Your task to perform on an android device: turn on priority inbox in the gmail app Image 0: 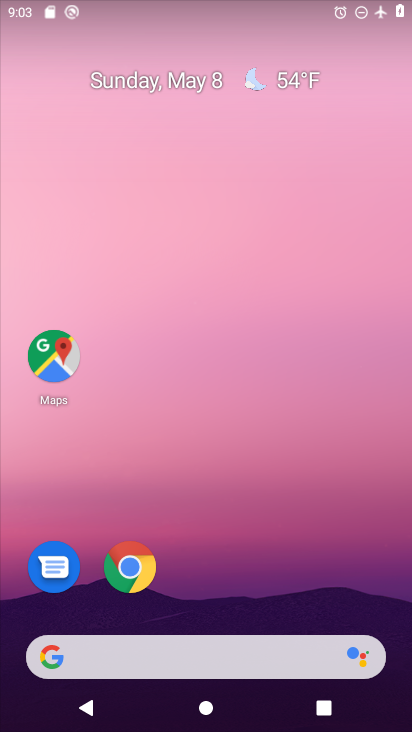
Step 0: drag from (291, 605) to (345, 173)
Your task to perform on an android device: turn on priority inbox in the gmail app Image 1: 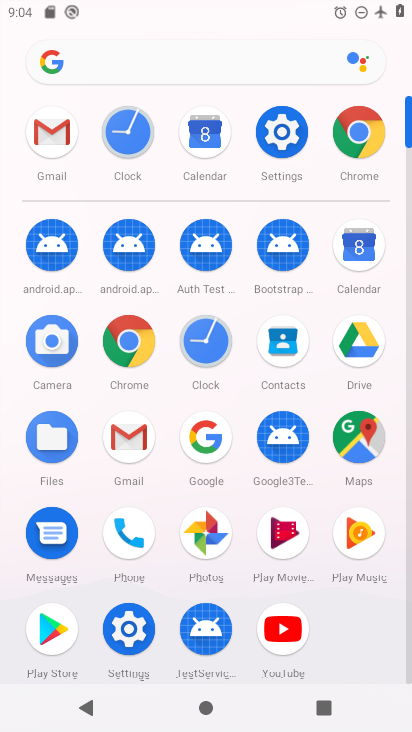
Step 1: click (120, 428)
Your task to perform on an android device: turn on priority inbox in the gmail app Image 2: 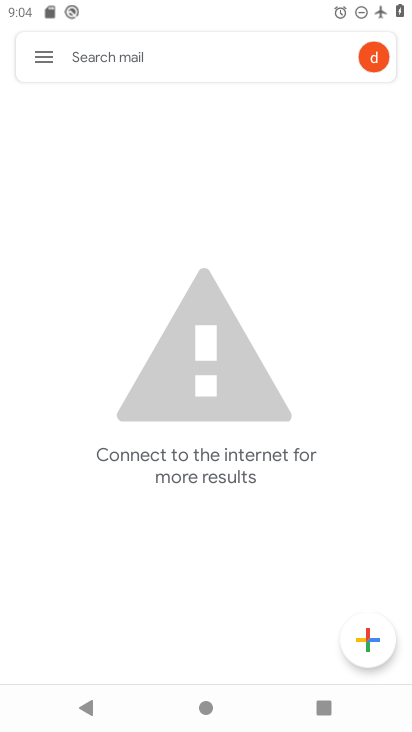
Step 2: click (31, 62)
Your task to perform on an android device: turn on priority inbox in the gmail app Image 3: 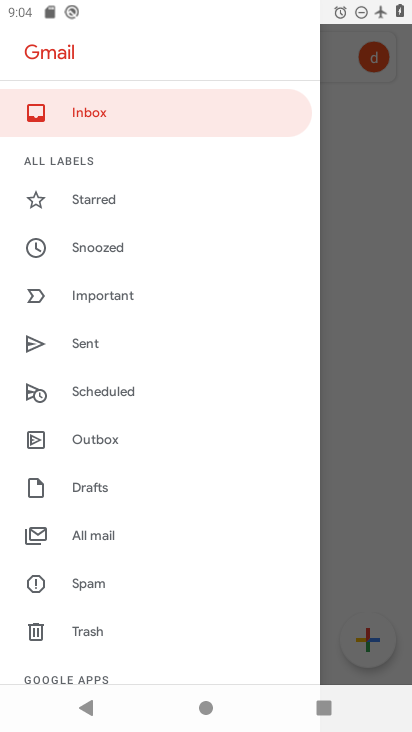
Step 3: drag from (68, 624) to (92, 277)
Your task to perform on an android device: turn on priority inbox in the gmail app Image 4: 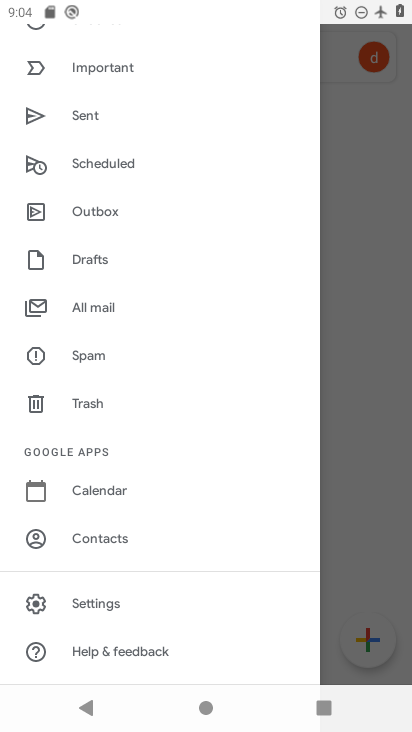
Step 4: click (125, 611)
Your task to perform on an android device: turn on priority inbox in the gmail app Image 5: 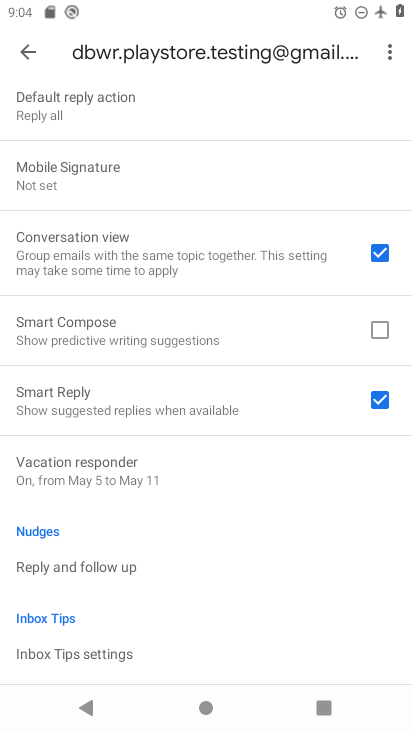
Step 5: drag from (161, 265) to (85, 607)
Your task to perform on an android device: turn on priority inbox in the gmail app Image 6: 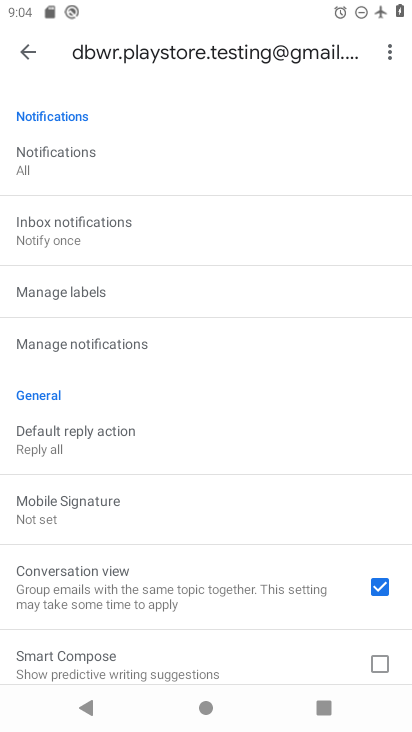
Step 6: drag from (166, 174) to (119, 536)
Your task to perform on an android device: turn on priority inbox in the gmail app Image 7: 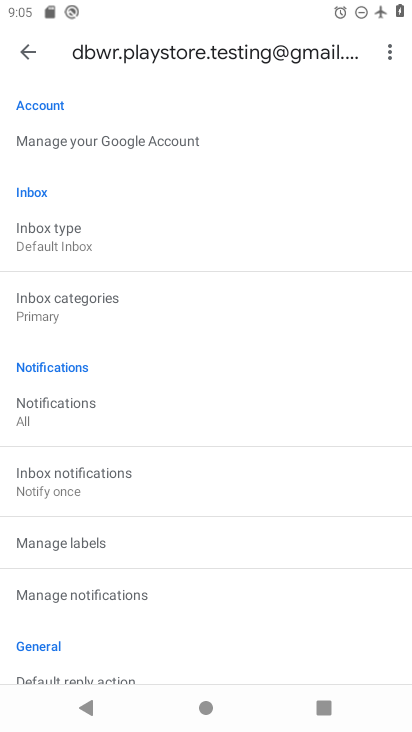
Step 7: click (97, 239)
Your task to perform on an android device: turn on priority inbox in the gmail app Image 8: 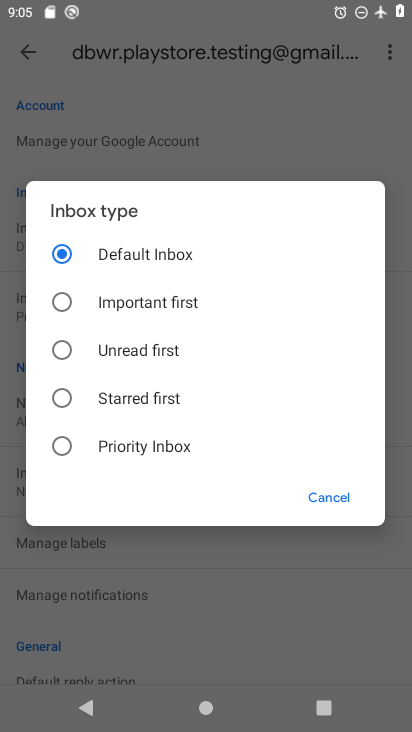
Step 8: click (108, 440)
Your task to perform on an android device: turn on priority inbox in the gmail app Image 9: 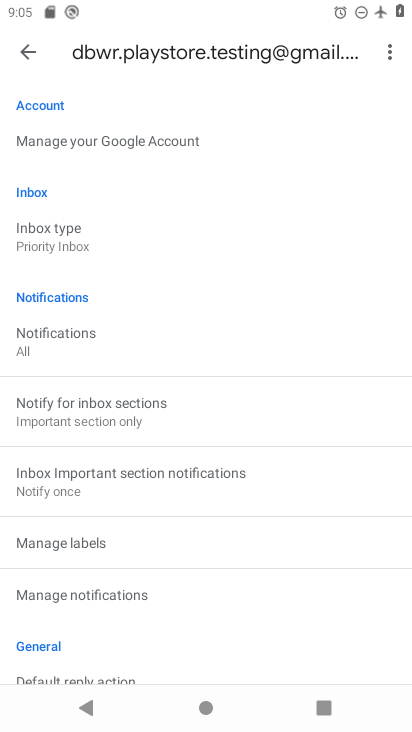
Step 9: task complete